Your task to perform on an android device: Open the calendar app, open the side menu, and click the "Day" option Image 0: 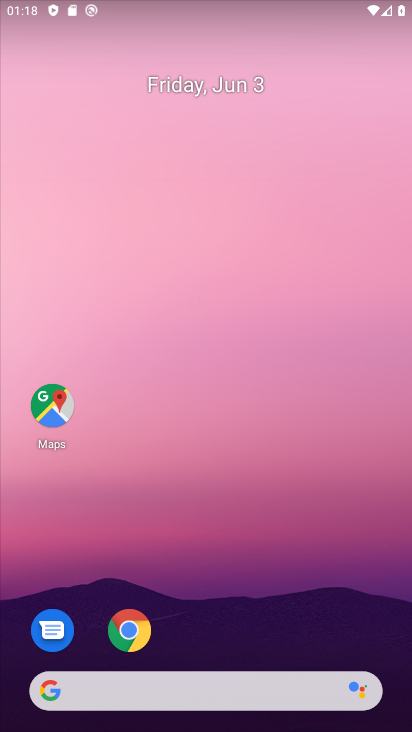
Step 0: drag from (270, 609) to (284, 209)
Your task to perform on an android device: Open the calendar app, open the side menu, and click the "Day" option Image 1: 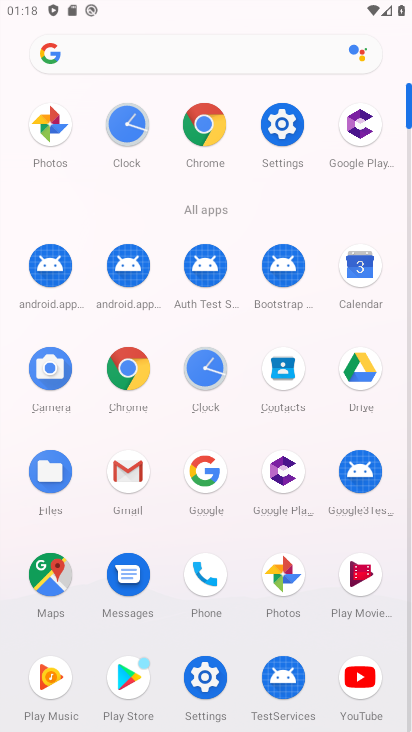
Step 1: click (356, 277)
Your task to perform on an android device: Open the calendar app, open the side menu, and click the "Day" option Image 2: 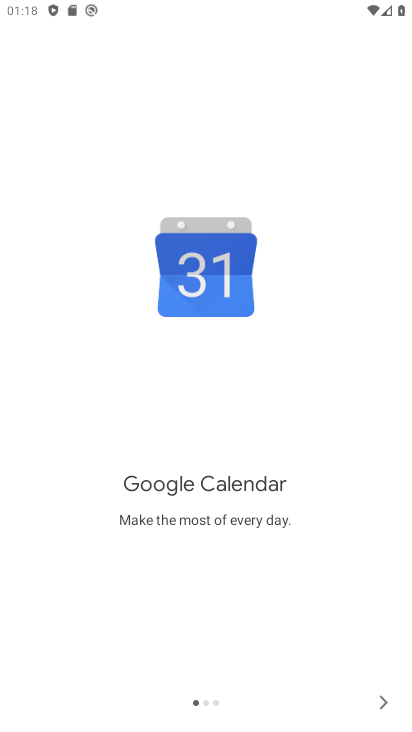
Step 2: click (387, 707)
Your task to perform on an android device: Open the calendar app, open the side menu, and click the "Day" option Image 3: 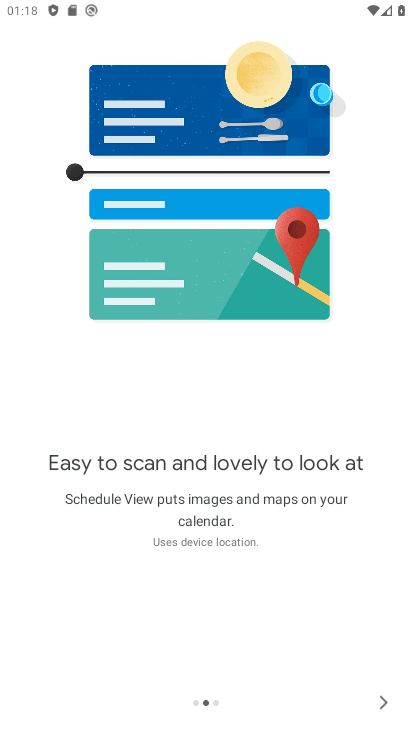
Step 3: click (387, 707)
Your task to perform on an android device: Open the calendar app, open the side menu, and click the "Day" option Image 4: 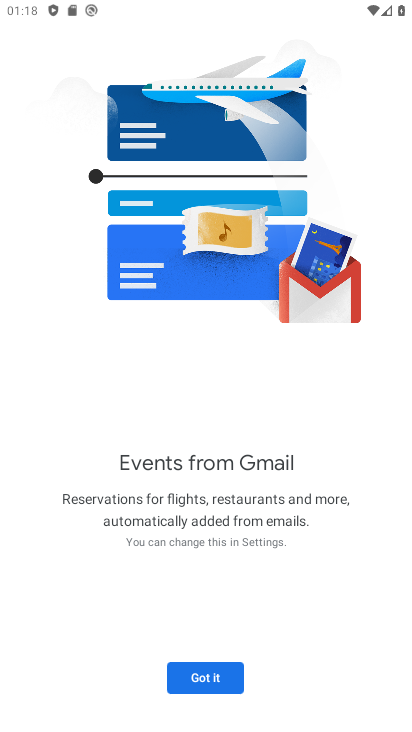
Step 4: click (224, 687)
Your task to perform on an android device: Open the calendar app, open the side menu, and click the "Day" option Image 5: 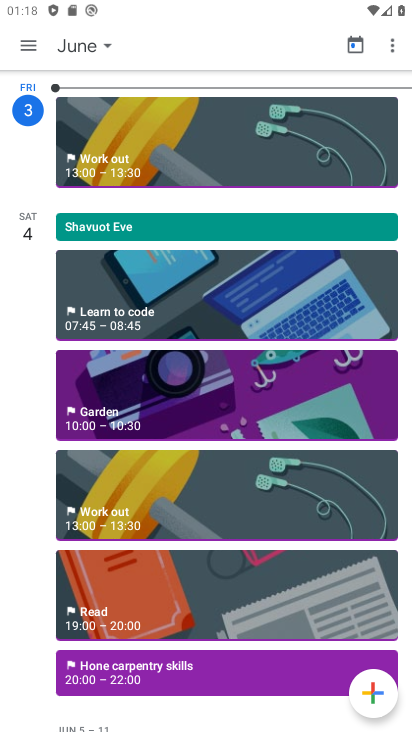
Step 5: click (18, 37)
Your task to perform on an android device: Open the calendar app, open the side menu, and click the "Day" option Image 6: 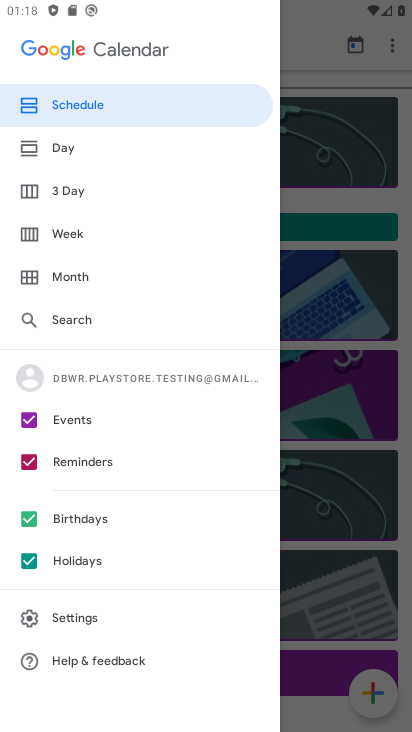
Step 6: click (68, 151)
Your task to perform on an android device: Open the calendar app, open the side menu, and click the "Day" option Image 7: 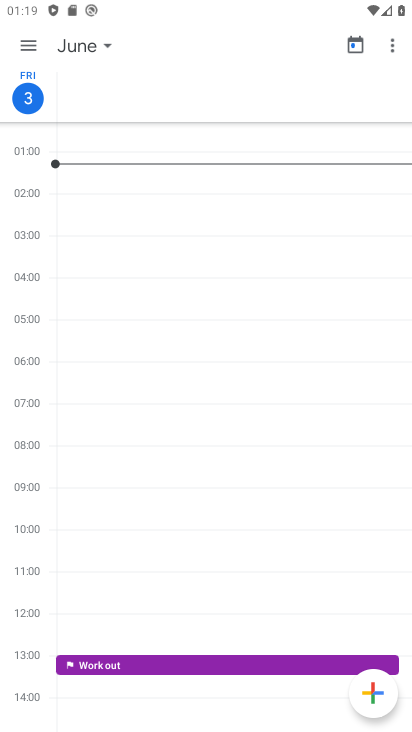
Step 7: task complete